Your task to perform on an android device: Open settings Image 0: 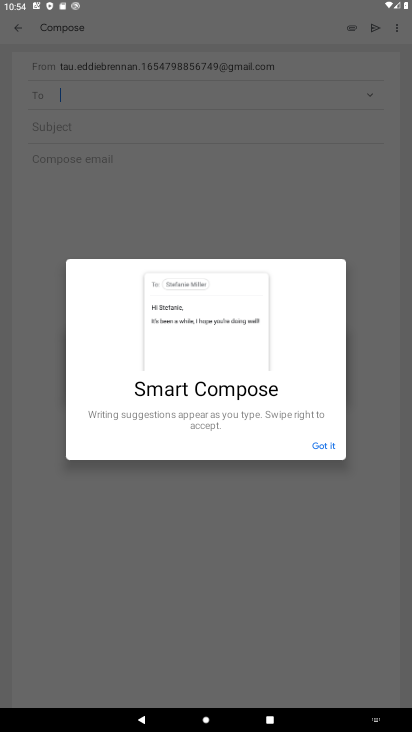
Step 0: press home button
Your task to perform on an android device: Open settings Image 1: 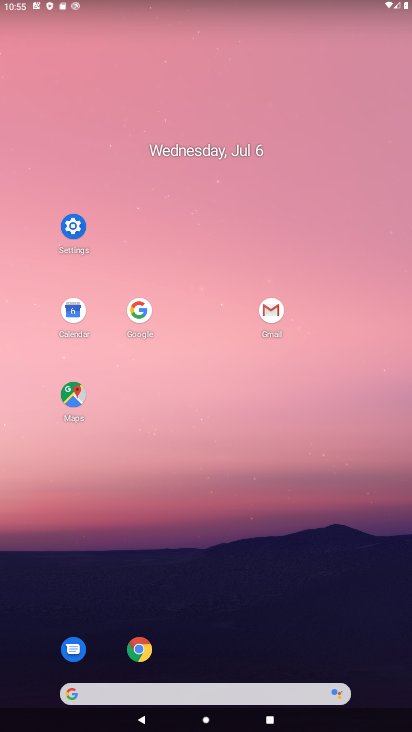
Step 1: click (76, 224)
Your task to perform on an android device: Open settings Image 2: 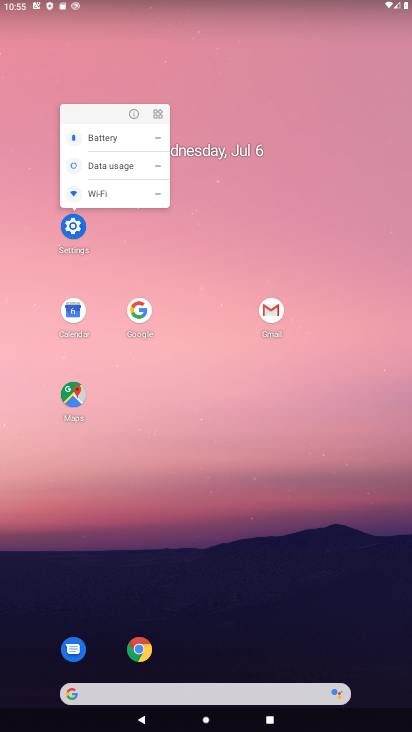
Step 2: click (76, 224)
Your task to perform on an android device: Open settings Image 3: 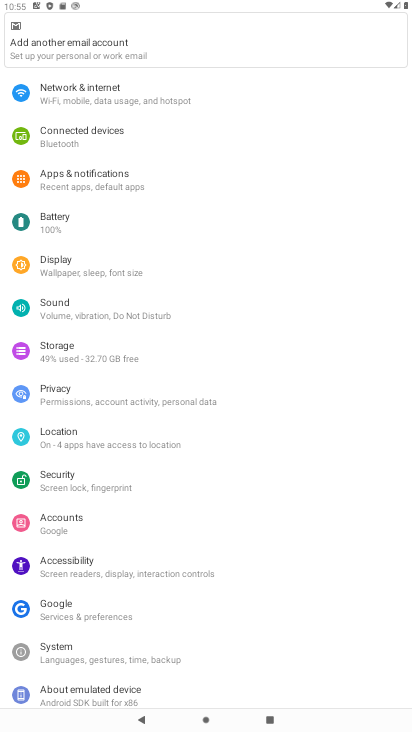
Step 3: task complete